Your task to perform on an android device: check battery use Image 0: 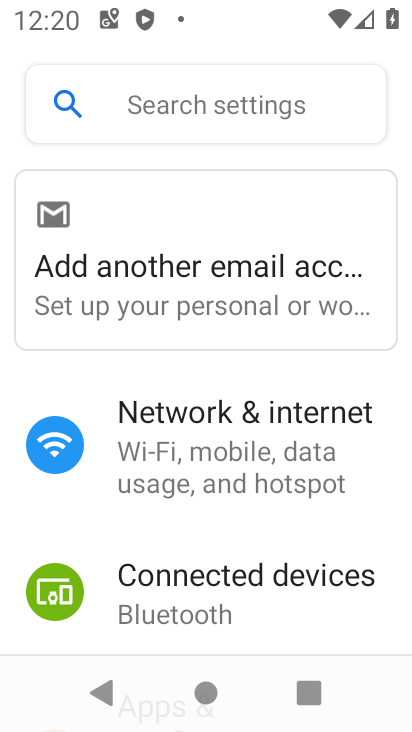
Step 0: drag from (206, 593) to (180, 22)
Your task to perform on an android device: check battery use Image 1: 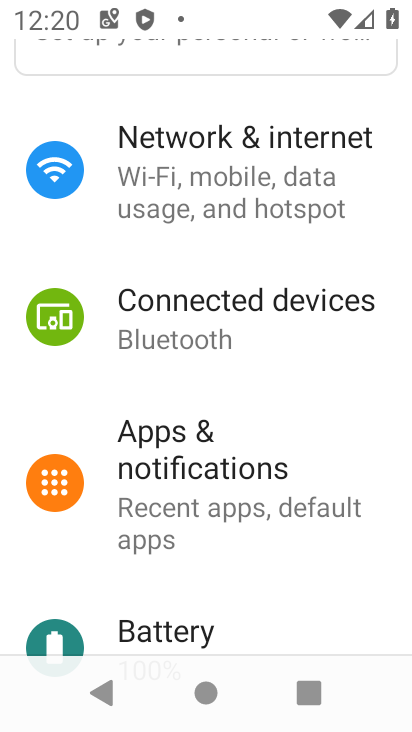
Step 1: drag from (195, 583) to (160, 177)
Your task to perform on an android device: check battery use Image 2: 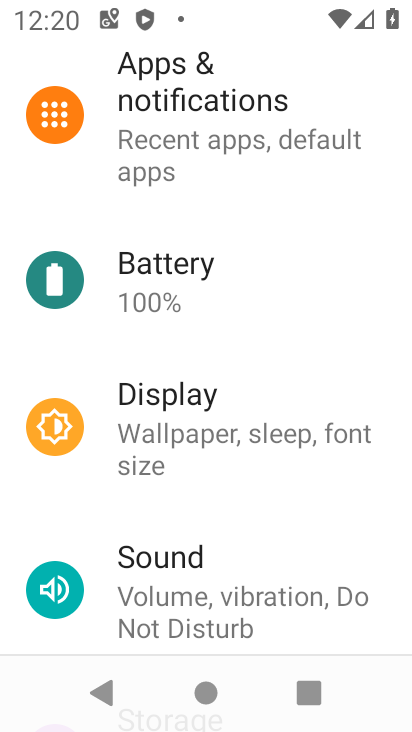
Step 2: click (167, 242)
Your task to perform on an android device: check battery use Image 3: 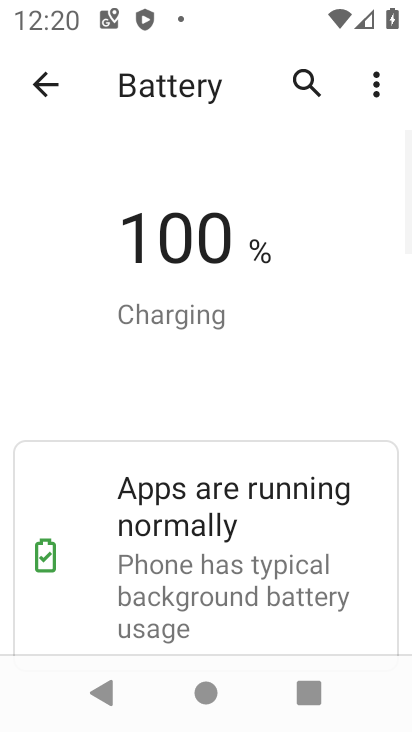
Step 3: click (379, 82)
Your task to perform on an android device: check battery use Image 4: 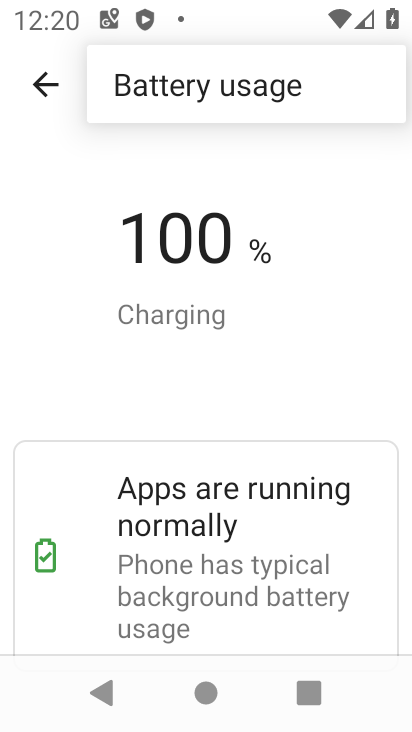
Step 4: click (248, 86)
Your task to perform on an android device: check battery use Image 5: 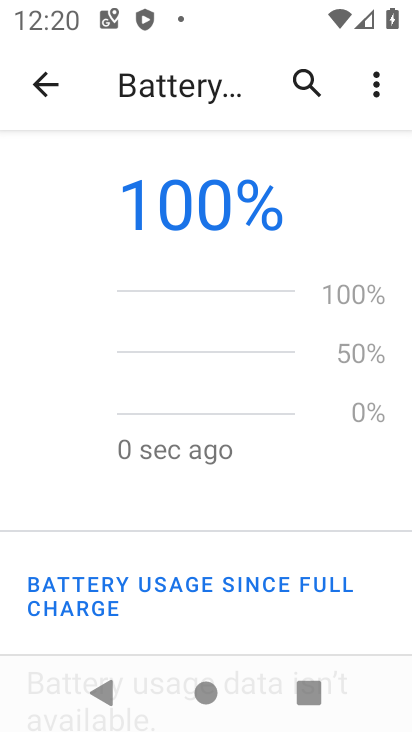
Step 5: task complete